Your task to perform on an android device: Open Yahoo.com Image 0: 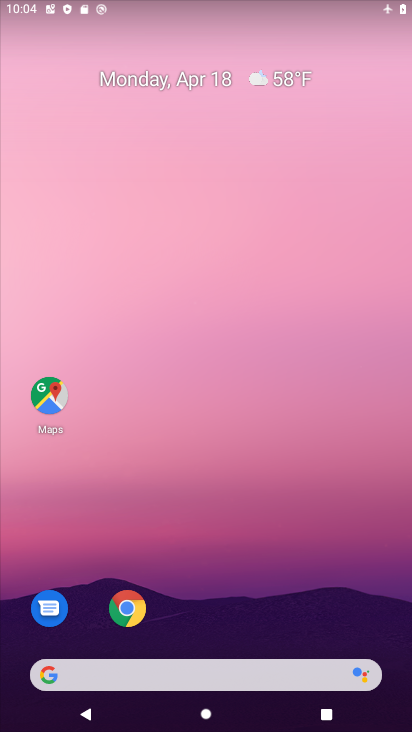
Step 0: drag from (354, 579) to (253, 227)
Your task to perform on an android device: Open Yahoo.com Image 1: 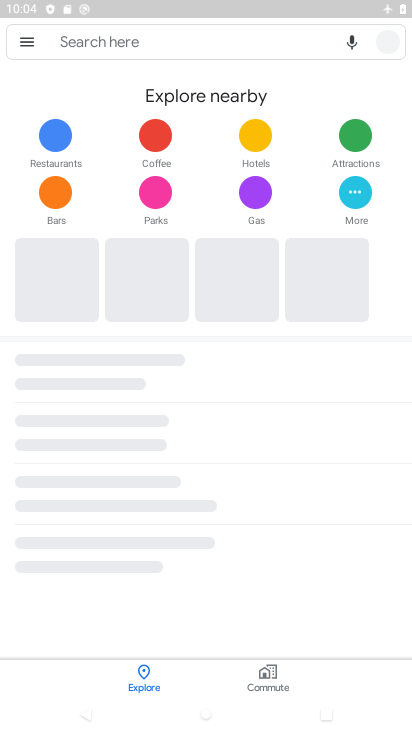
Step 1: press back button
Your task to perform on an android device: Open Yahoo.com Image 2: 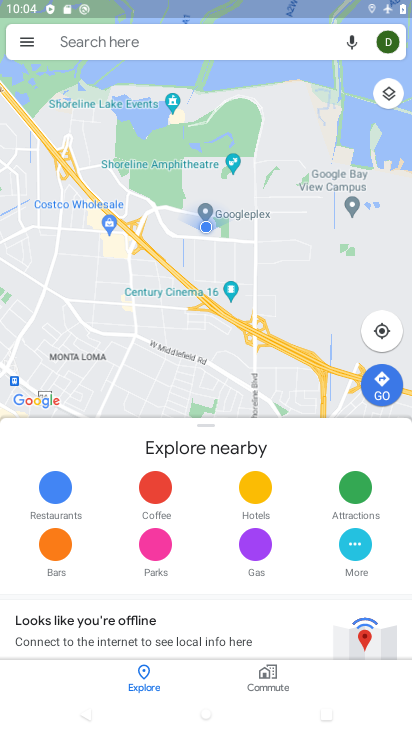
Step 2: press back button
Your task to perform on an android device: Open Yahoo.com Image 3: 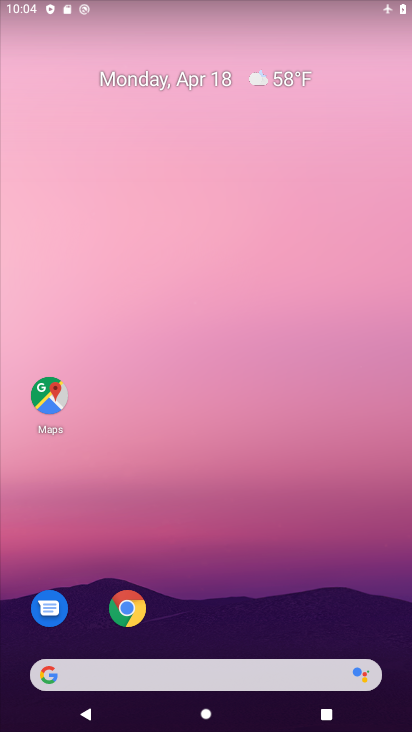
Step 3: drag from (317, 615) to (254, 213)
Your task to perform on an android device: Open Yahoo.com Image 4: 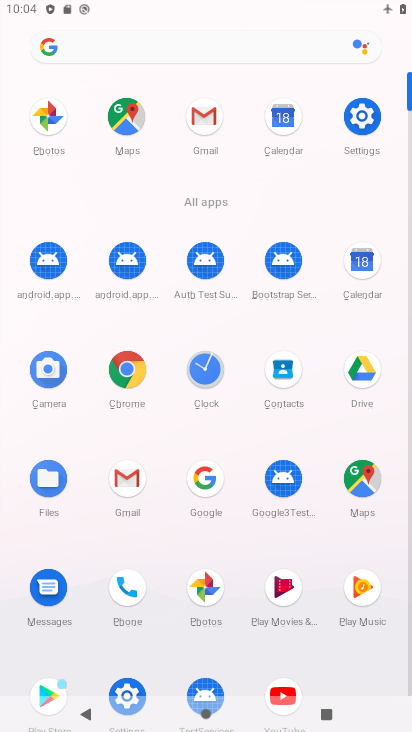
Step 4: click (131, 382)
Your task to perform on an android device: Open Yahoo.com Image 5: 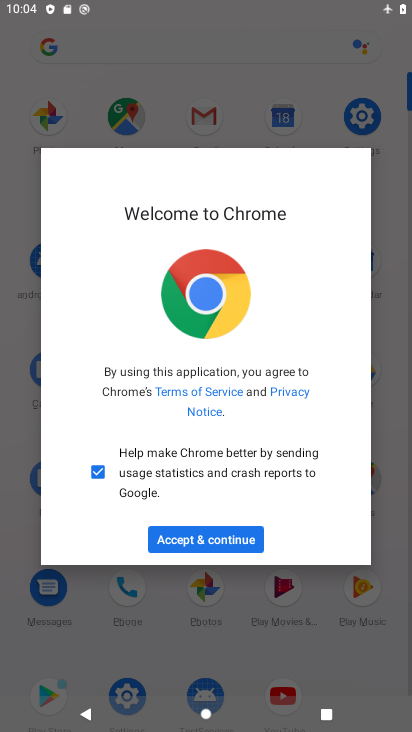
Step 5: click (193, 546)
Your task to perform on an android device: Open Yahoo.com Image 6: 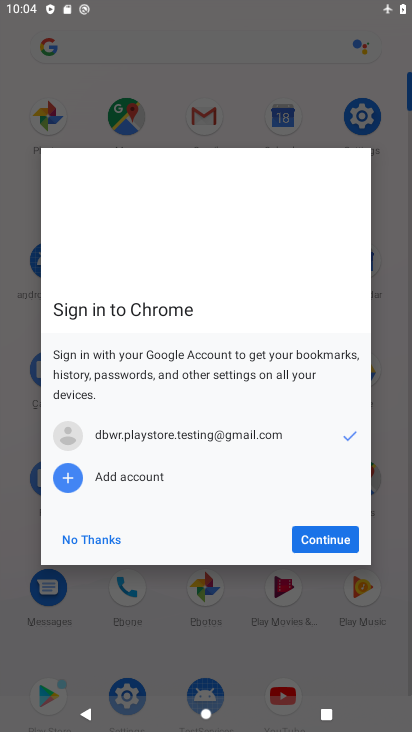
Step 6: click (347, 546)
Your task to perform on an android device: Open Yahoo.com Image 7: 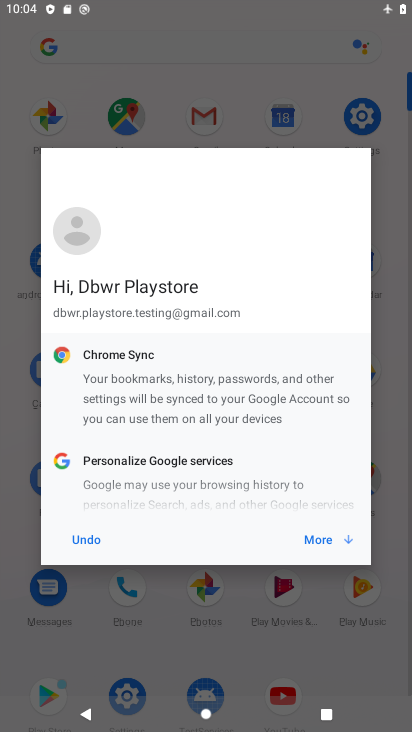
Step 7: click (306, 535)
Your task to perform on an android device: Open Yahoo.com Image 8: 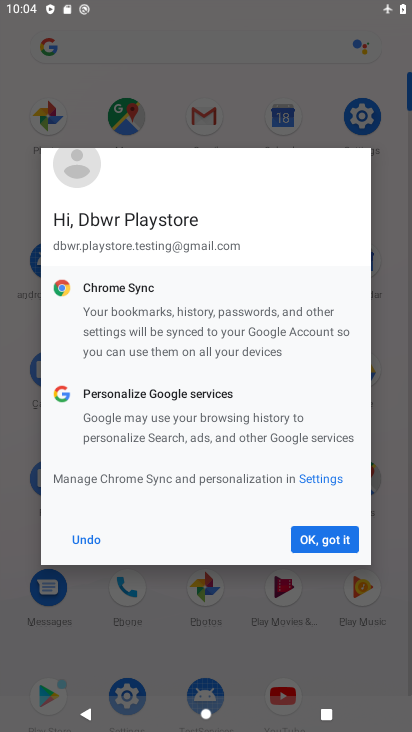
Step 8: click (306, 535)
Your task to perform on an android device: Open Yahoo.com Image 9: 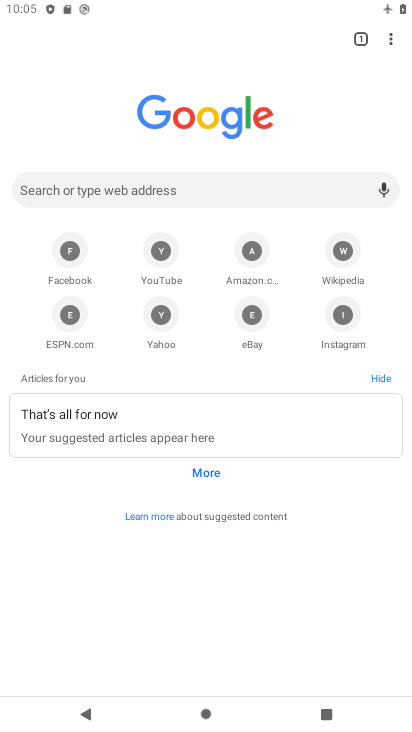
Step 9: click (168, 334)
Your task to perform on an android device: Open Yahoo.com Image 10: 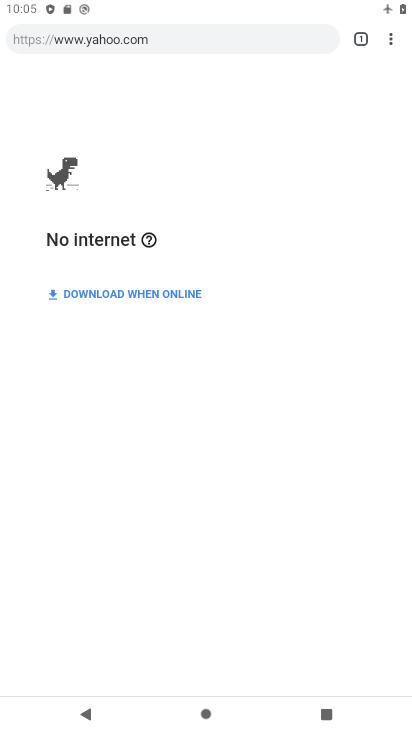
Step 10: task complete